Your task to perform on an android device: Open Yahoo.com Image 0: 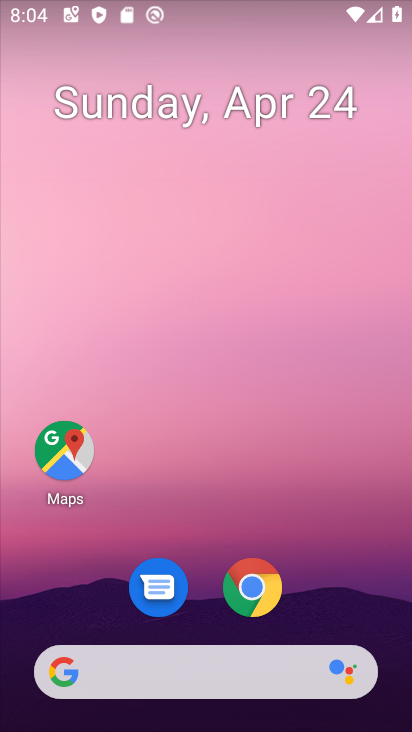
Step 0: click (254, 586)
Your task to perform on an android device: Open Yahoo.com Image 1: 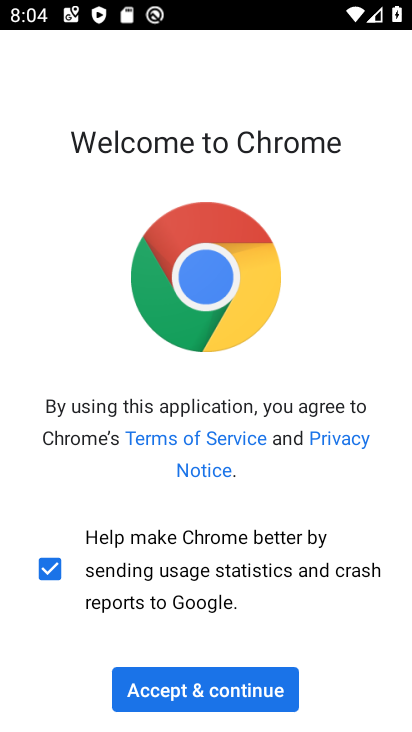
Step 1: click (274, 701)
Your task to perform on an android device: Open Yahoo.com Image 2: 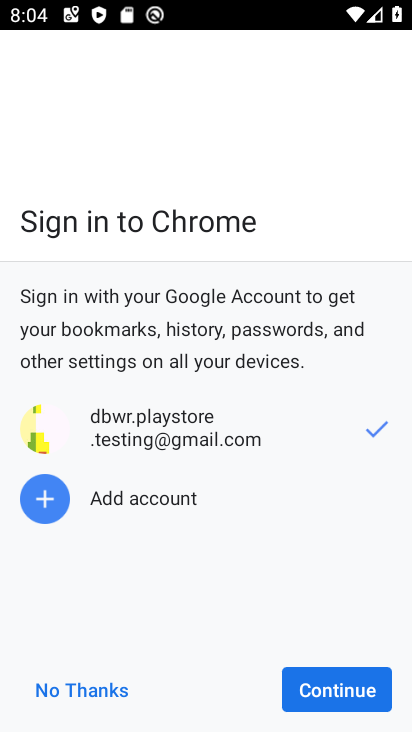
Step 2: click (342, 686)
Your task to perform on an android device: Open Yahoo.com Image 3: 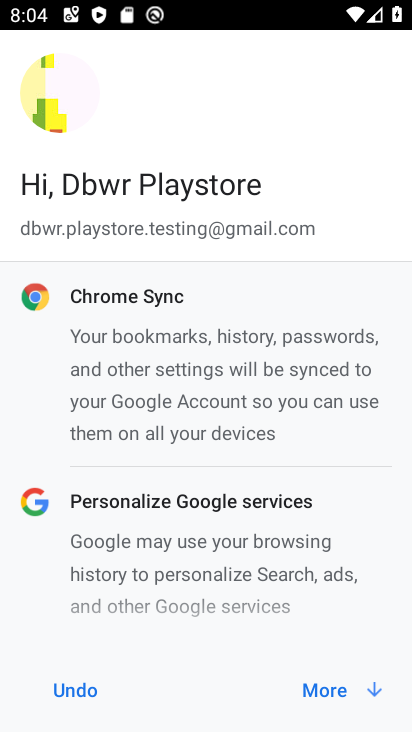
Step 3: click (341, 691)
Your task to perform on an android device: Open Yahoo.com Image 4: 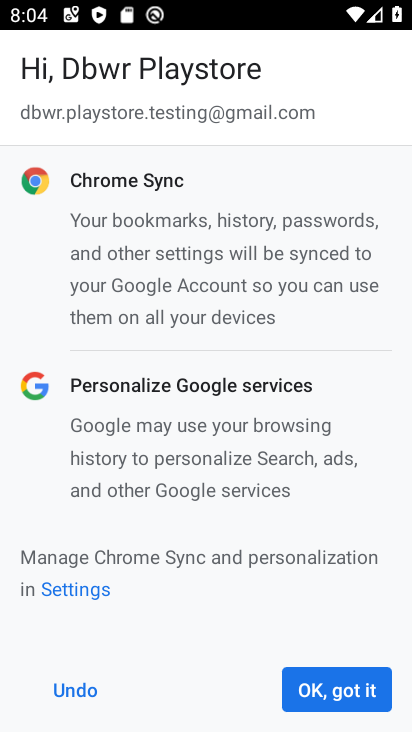
Step 4: click (341, 691)
Your task to perform on an android device: Open Yahoo.com Image 5: 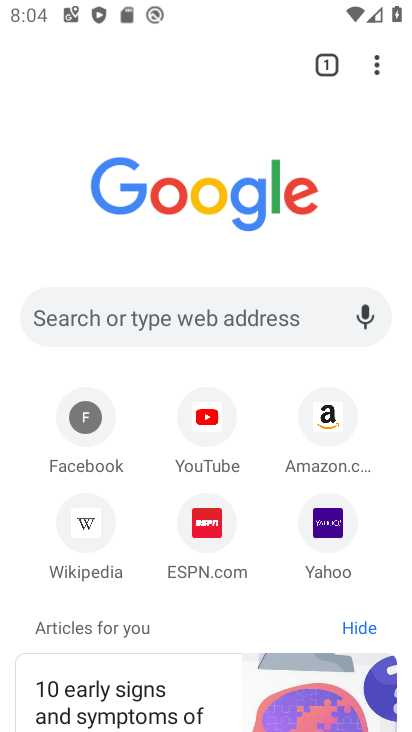
Step 5: click (321, 504)
Your task to perform on an android device: Open Yahoo.com Image 6: 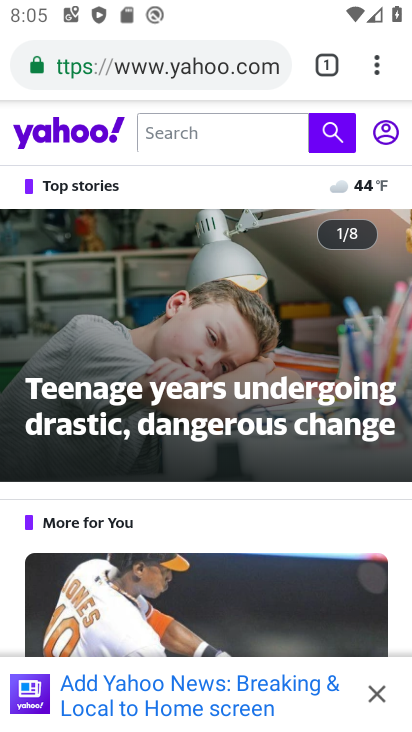
Step 6: task complete